Your task to perform on an android device: turn off airplane mode Image 0: 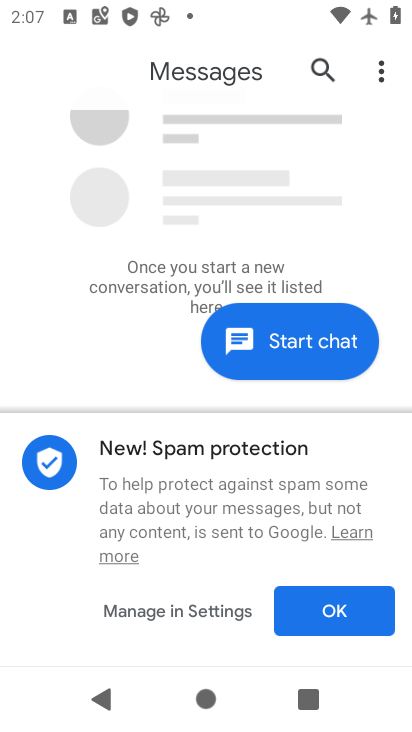
Step 0: press home button
Your task to perform on an android device: turn off airplane mode Image 1: 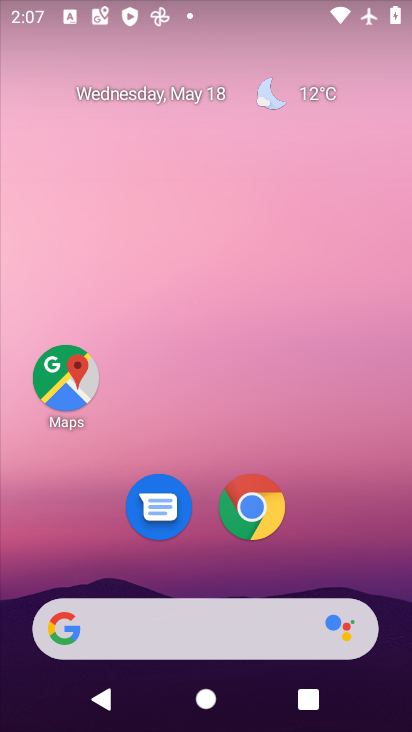
Step 1: drag from (386, 580) to (330, 55)
Your task to perform on an android device: turn off airplane mode Image 2: 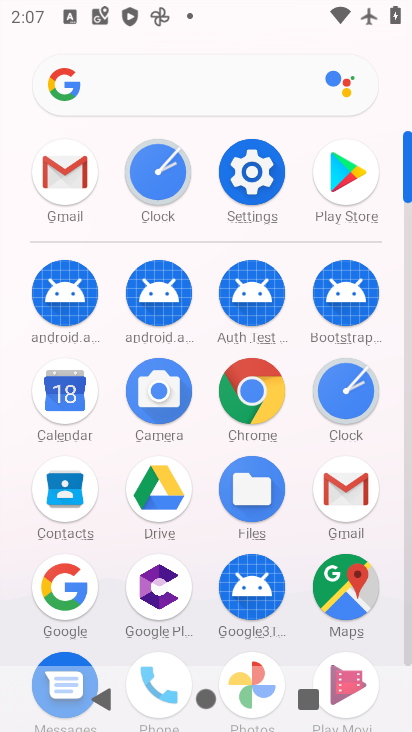
Step 2: click (409, 651)
Your task to perform on an android device: turn off airplane mode Image 3: 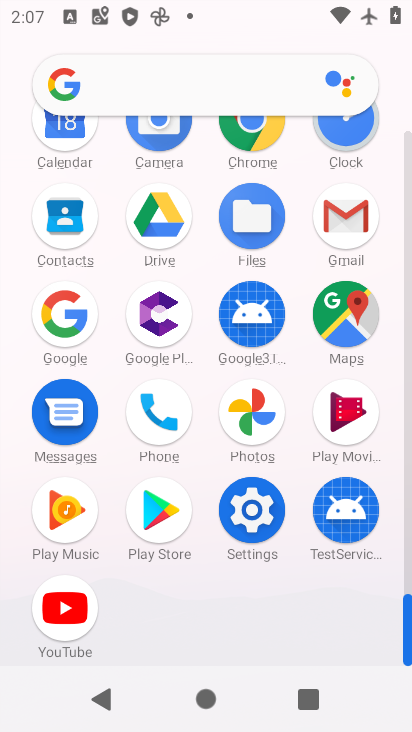
Step 3: click (255, 512)
Your task to perform on an android device: turn off airplane mode Image 4: 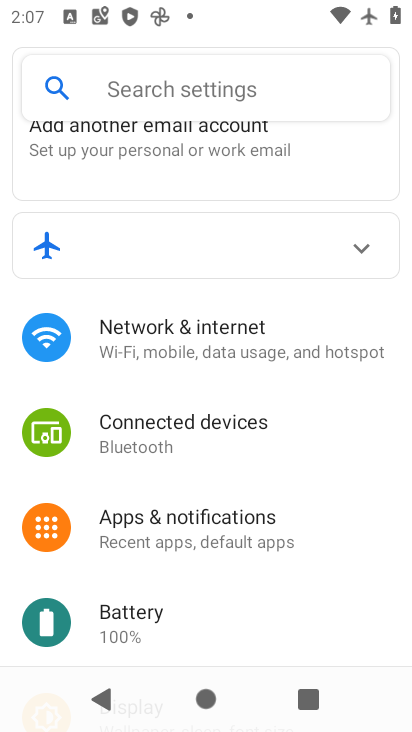
Step 4: click (195, 331)
Your task to perform on an android device: turn off airplane mode Image 5: 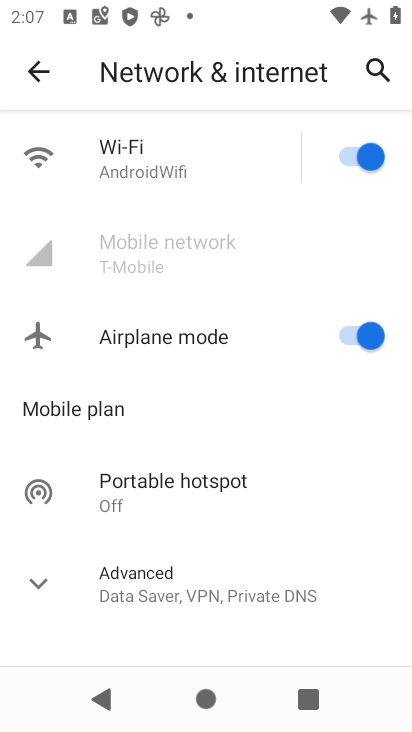
Step 5: click (349, 340)
Your task to perform on an android device: turn off airplane mode Image 6: 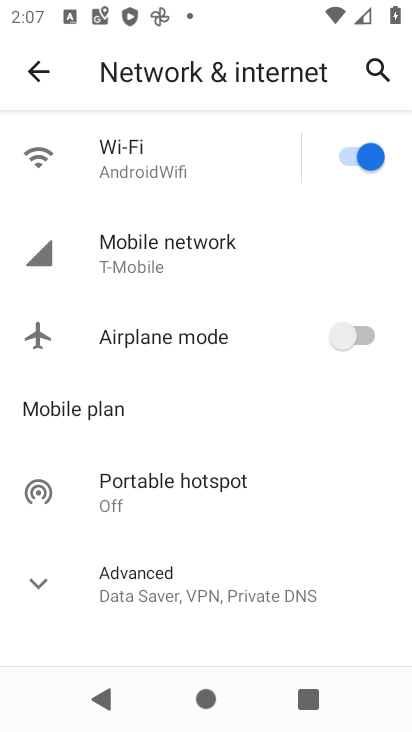
Step 6: task complete